Your task to perform on an android device: Go to settings Image 0: 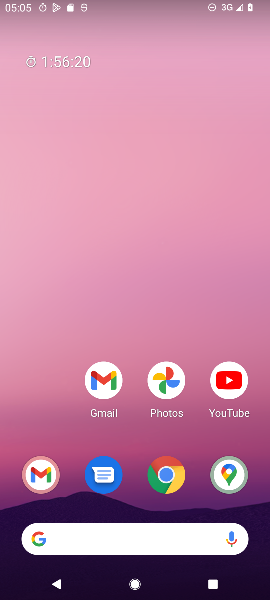
Step 0: press home button
Your task to perform on an android device: Go to settings Image 1: 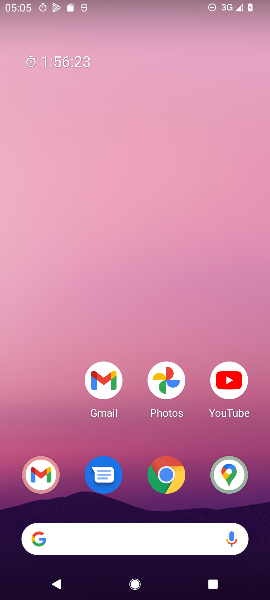
Step 1: drag from (54, 436) to (53, 170)
Your task to perform on an android device: Go to settings Image 2: 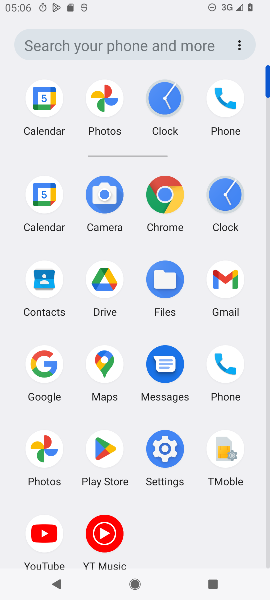
Step 2: click (159, 454)
Your task to perform on an android device: Go to settings Image 3: 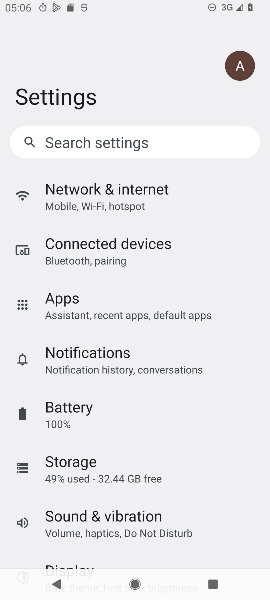
Step 3: task complete